Your task to perform on an android device: Go to internet settings Image 0: 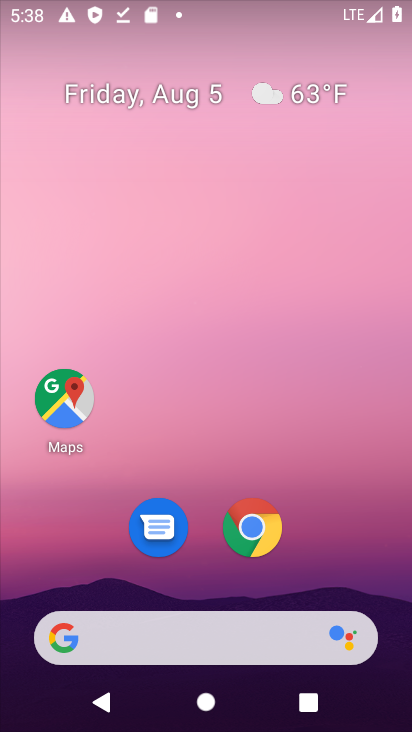
Step 0: drag from (201, 492) to (196, 204)
Your task to perform on an android device: Go to internet settings Image 1: 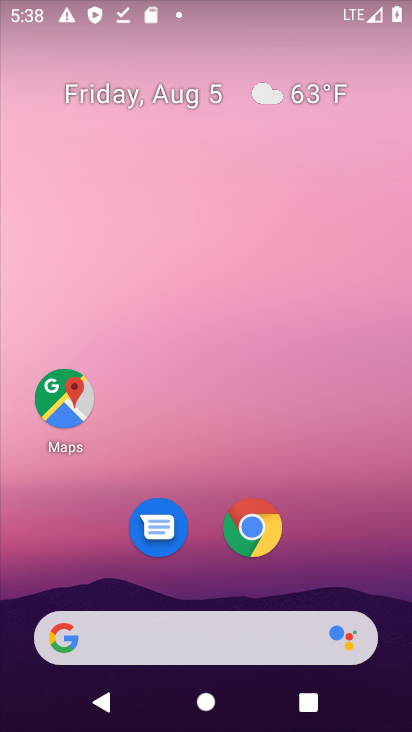
Step 1: drag from (218, 504) to (244, 115)
Your task to perform on an android device: Go to internet settings Image 2: 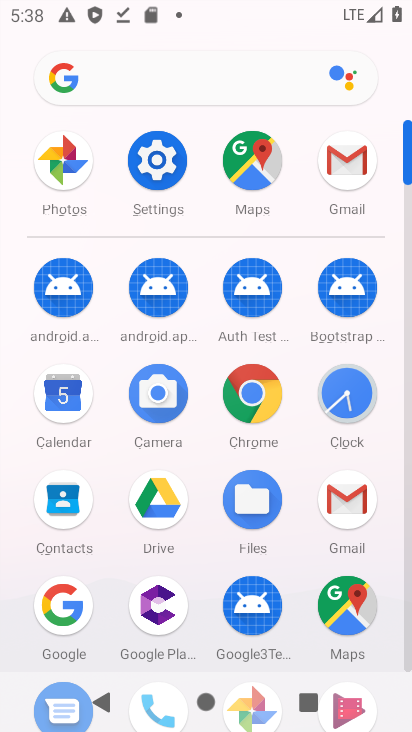
Step 2: click (153, 158)
Your task to perform on an android device: Go to internet settings Image 3: 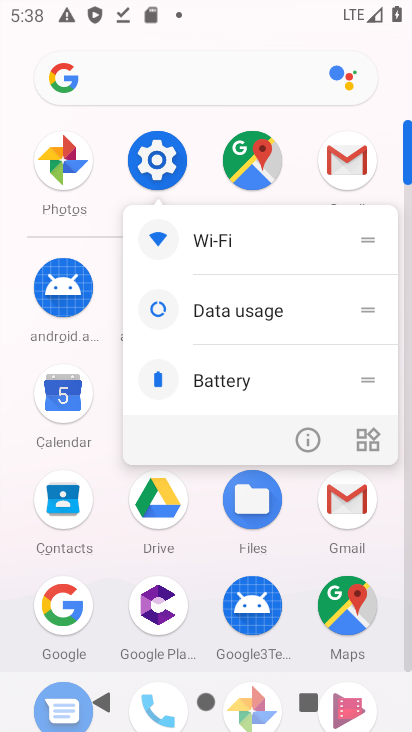
Step 3: click (309, 452)
Your task to perform on an android device: Go to internet settings Image 4: 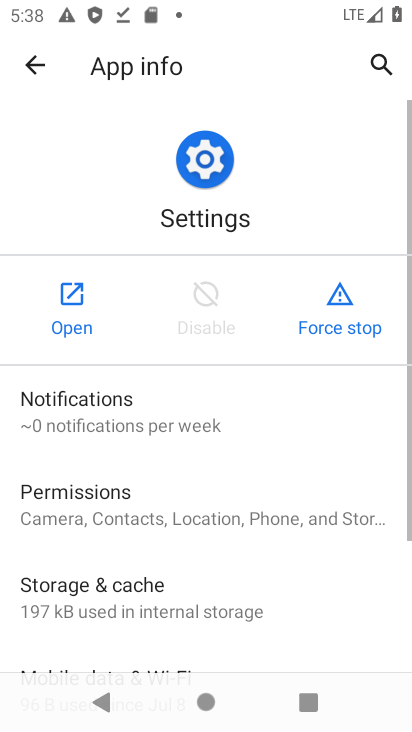
Step 4: click (61, 287)
Your task to perform on an android device: Go to internet settings Image 5: 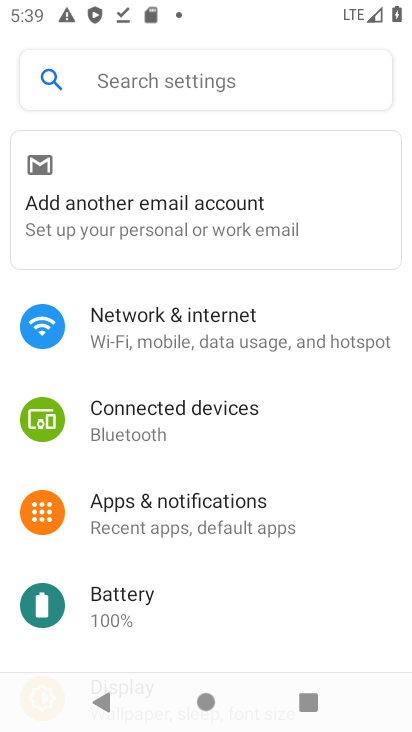
Step 5: click (166, 321)
Your task to perform on an android device: Go to internet settings Image 6: 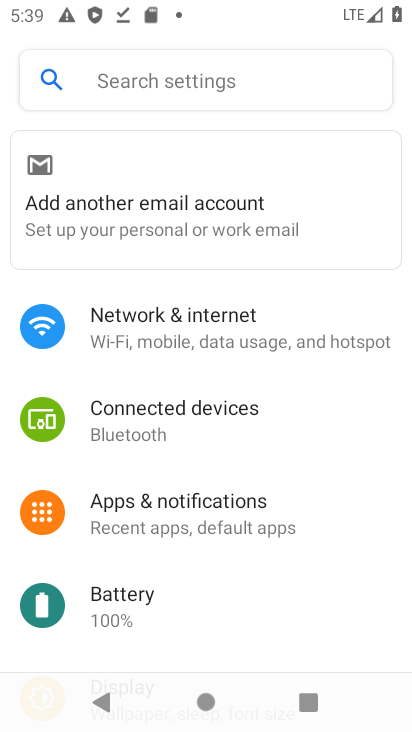
Step 6: click (166, 321)
Your task to perform on an android device: Go to internet settings Image 7: 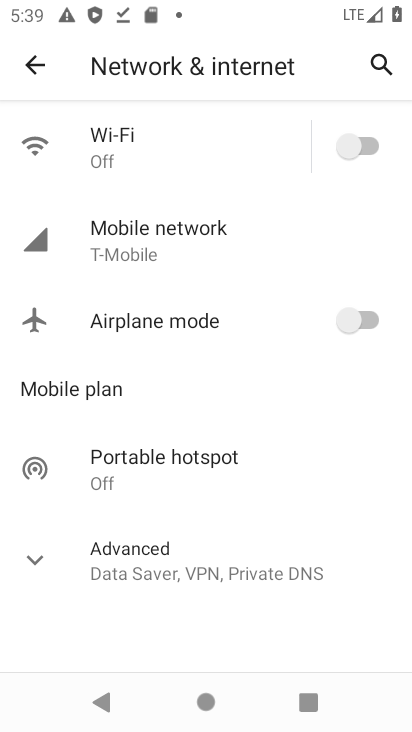
Step 7: click (138, 566)
Your task to perform on an android device: Go to internet settings Image 8: 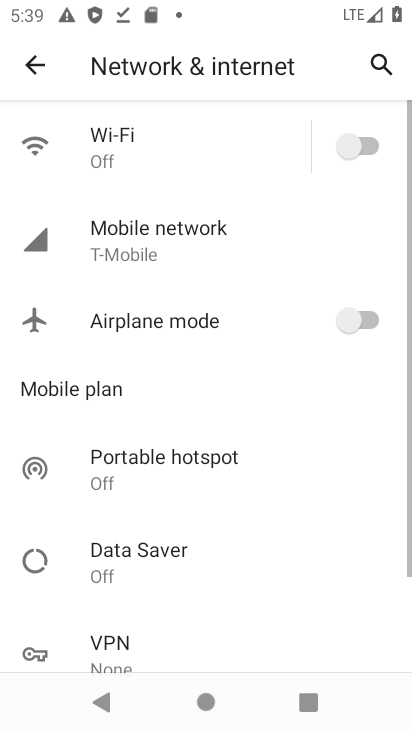
Step 8: task complete